Your task to perform on an android device: Show me the alarms in the clock app Image 0: 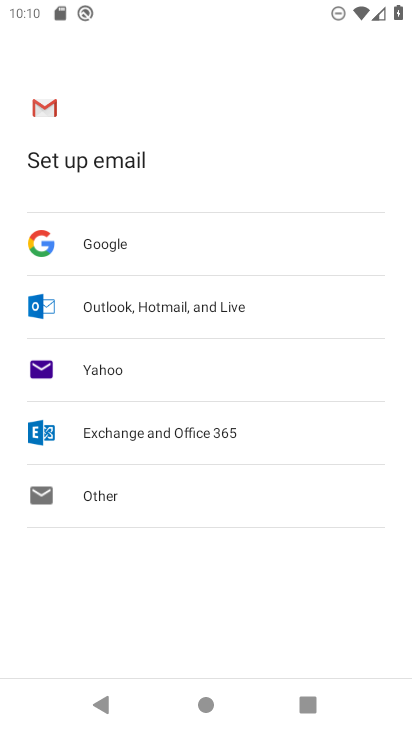
Step 0: press home button
Your task to perform on an android device: Show me the alarms in the clock app Image 1: 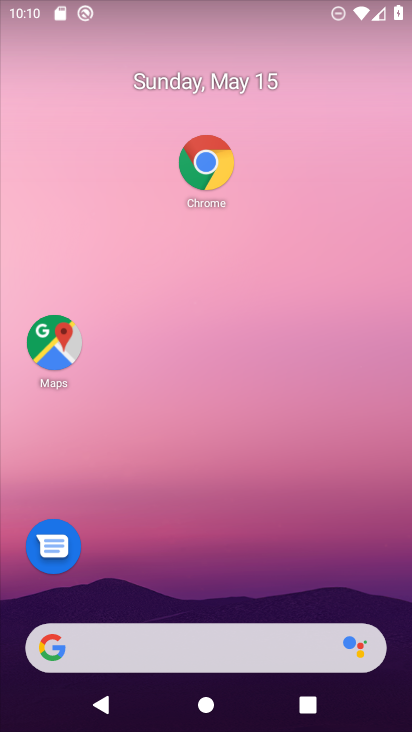
Step 1: drag from (237, 517) to (250, 222)
Your task to perform on an android device: Show me the alarms in the clock app Image 2: 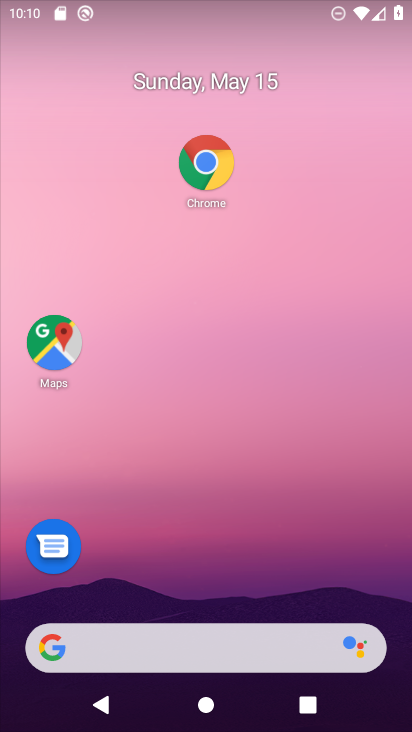
Step 2: drag from (234, 616) to (280, 241)
Your task to perform on an android device: Show me the alarms in the clock app Image 3: 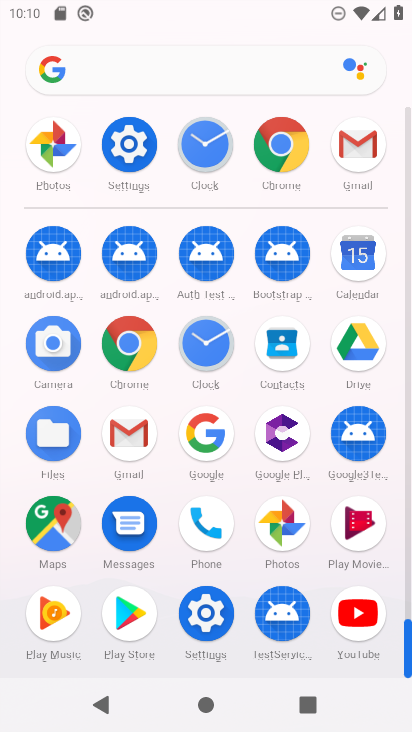
Step 3: click (201, 334)
Your task to perform on an android device: Show me the alarms in the clock app Image 4: 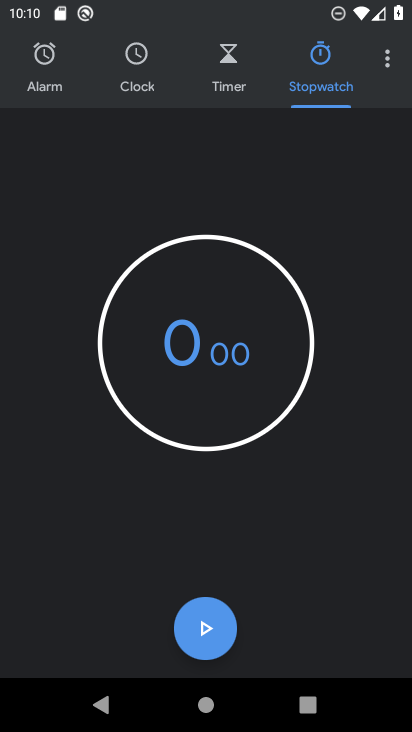
Step 4: click (44, 80)
Your task to perform on an android device: Show me the alarms in the clock app Image 5: 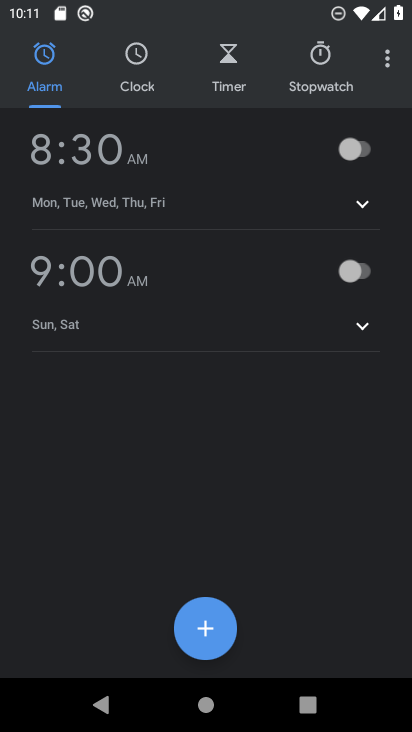
Step 5: task complete